Your task to perform on an android device: turn off notifications settings in the gmail app Image 0: 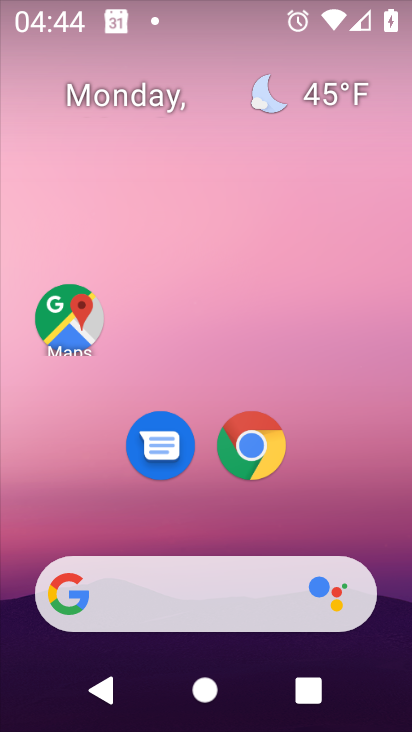
Step 0: drag from (311, 522) to (274, 108)
Your task to perform on an android device: turn off notifications settings in the gmail app Image 1: 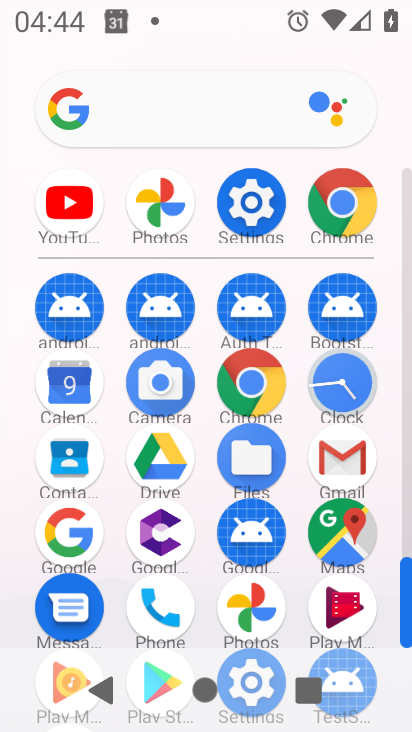
Step 1: click (313, 471)
Your task to perform on an android device: turn off notifications settings in the gmail app Image 2: 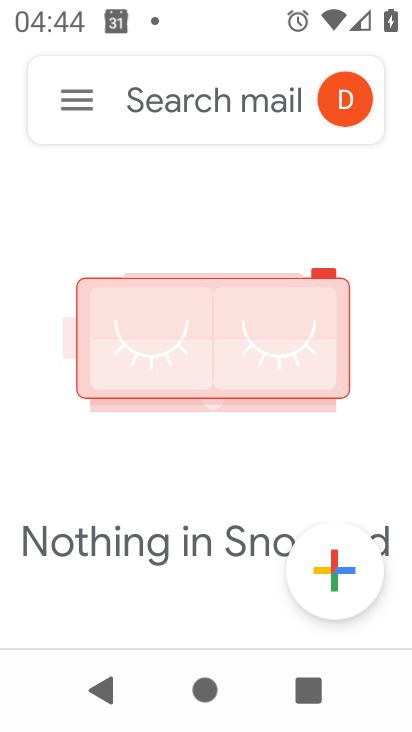
Step 2: click (75, 109)
Your task to perform on an android device: turn off notifications settings in the gmail app Image 3: 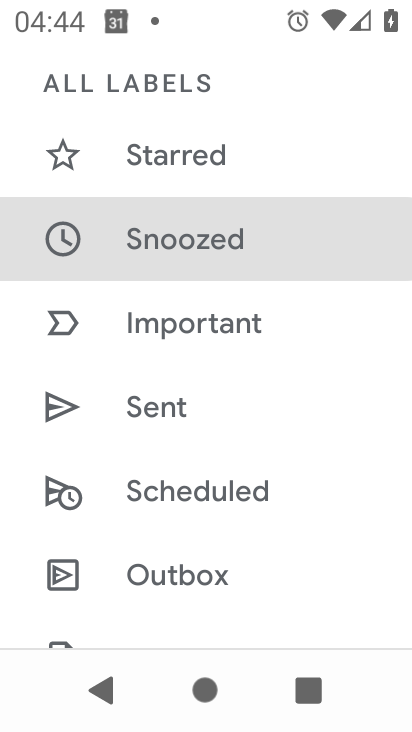
Step 3: drag from (240, 555) to (264, 49)
Your task to perform on an android device: turn off notifications settings in the gmail app Image 4: 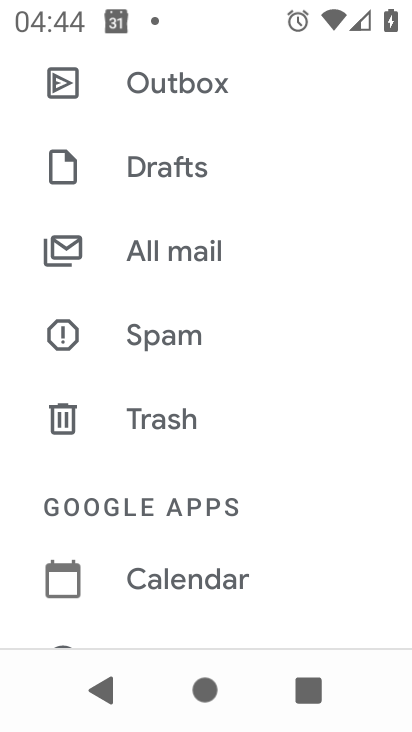
Step 4: drag from (295, 422) to (301, 71)
Your task to perform on an android device: turn off notifications settings in the gmail app Image 5: 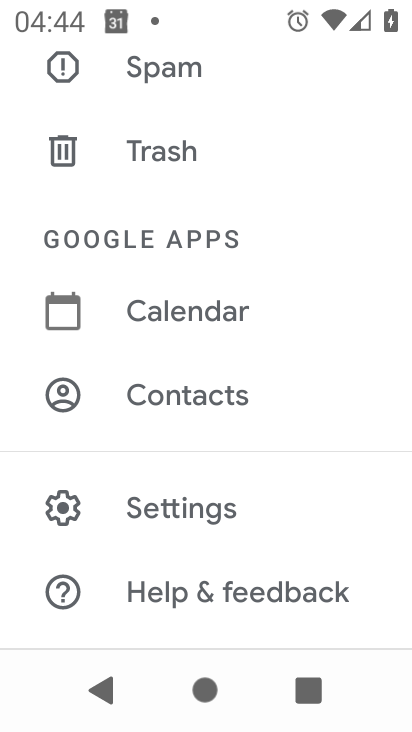
Step 5: click (236, 512)
Your task to perform on an android device: turn off notifications settings in the gmail app Image 6: 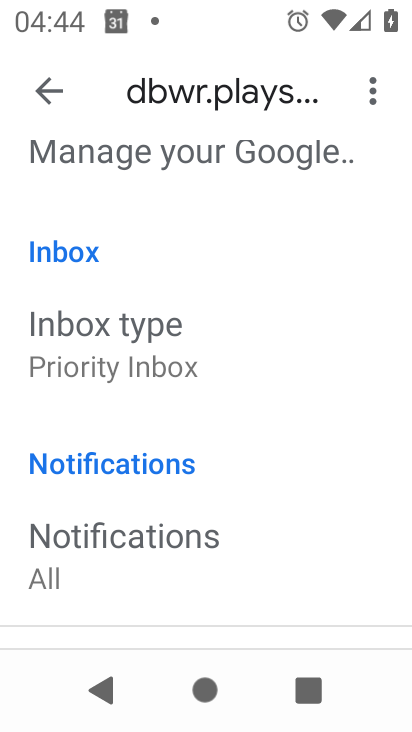
Step 6: drag from (134, 557) to (198, 136)
Your task to perform on an android device: turn off notifications settings in the gmail app Image 7: 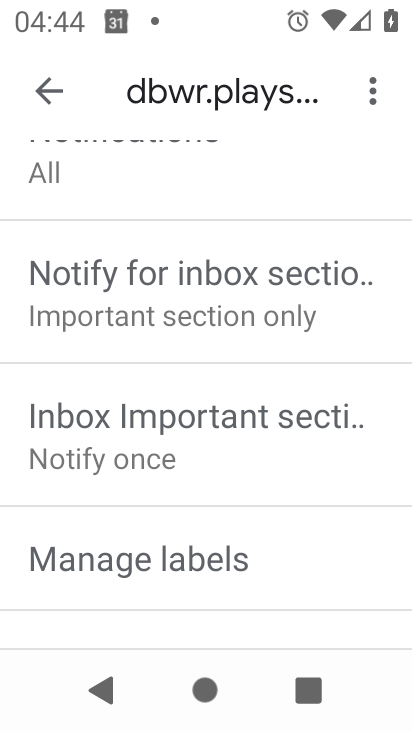
Step 7: drag from (249, 522) to (263, 183)
Your task to perform on an android device: turn off notifications settings in the gmail app Image 8: 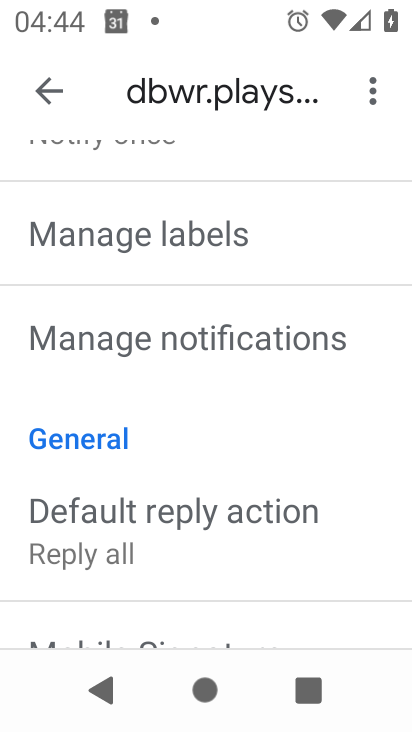
Step 8: click (212, 356)
Your task to perform on an android device: turn off notifications settings in the gmail app Image 9: 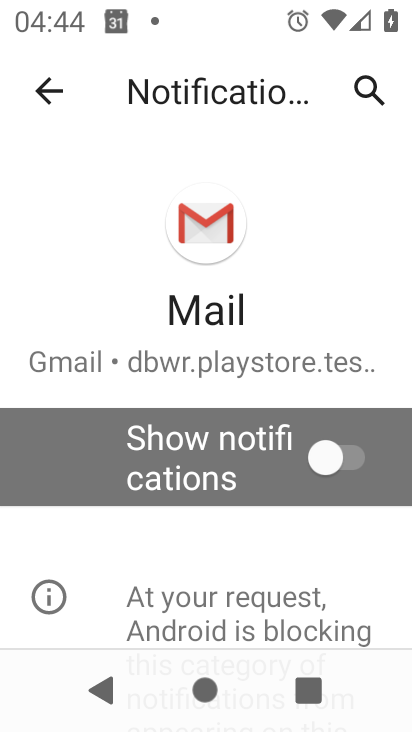
Step 9: task complete